Your task to perform on an android device: check battery use Image 0: 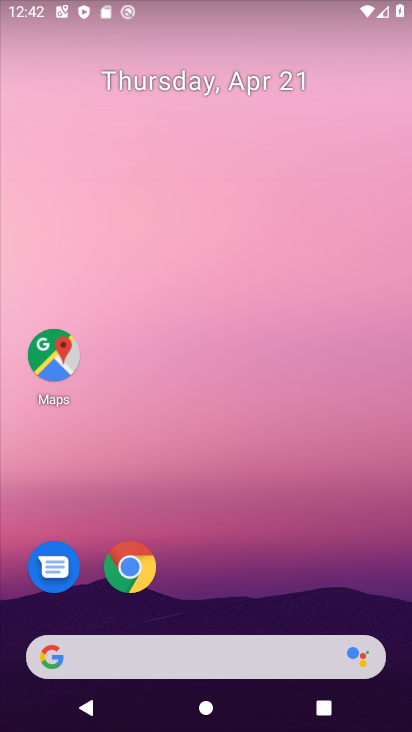
Step 0: drag from (252, 504) to (145, 103)
Your task to perform on an android device: check battery use Image 1: 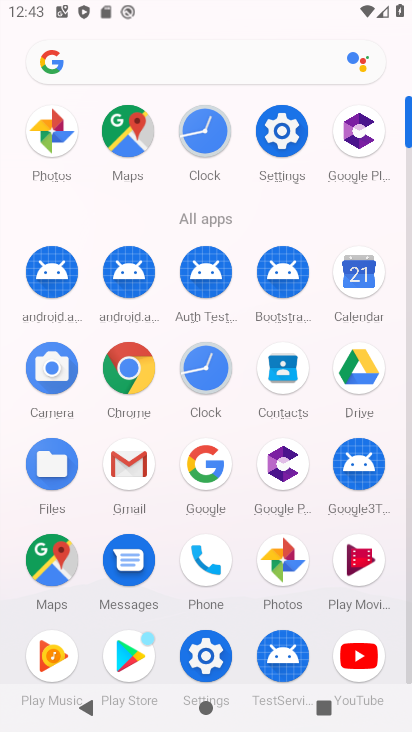
Step 1: click (288, 130)
Your task to perform on an android device: check battery use Image 2: 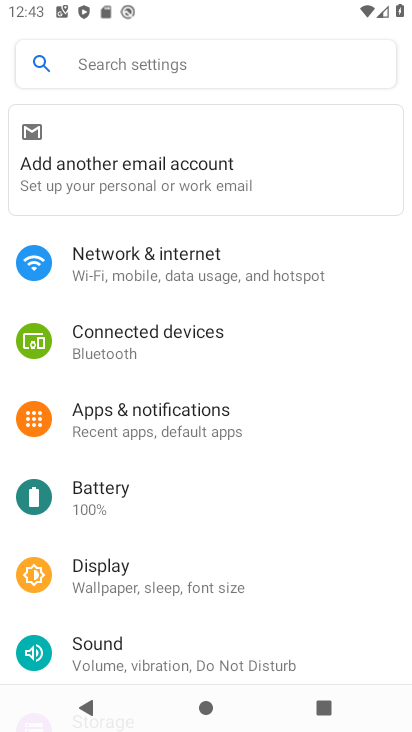
Step 2: click (142, 488)
Your task to perform on an android device: check battery use Image 3: 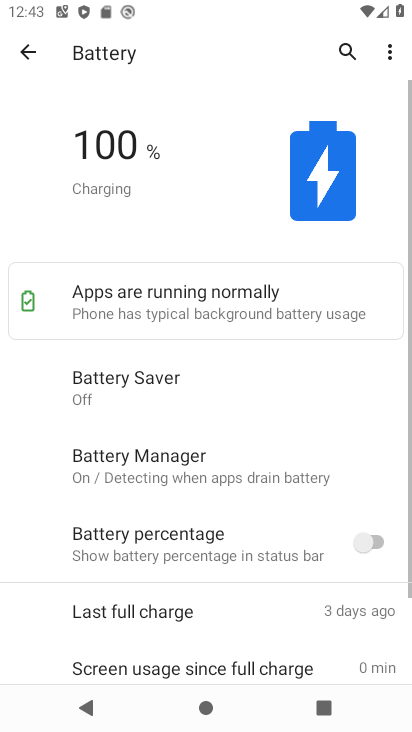
Step 3: task complete